Your task to perform on an android device: empty trash in the gmail app Image 0: 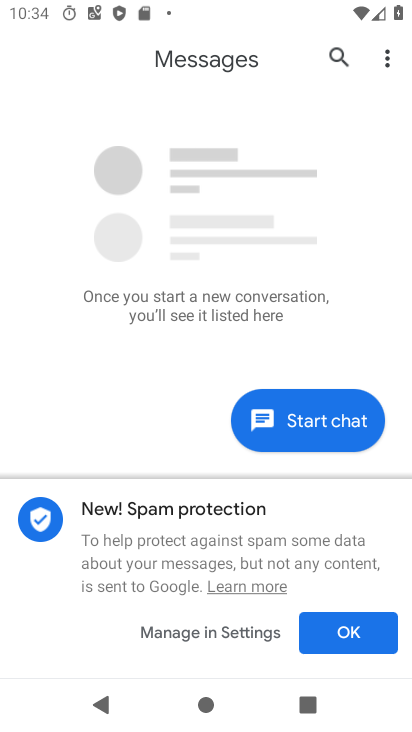
Step 0: press home button
Your task to perform on an android device: empty trash in the gmail app Image 1: 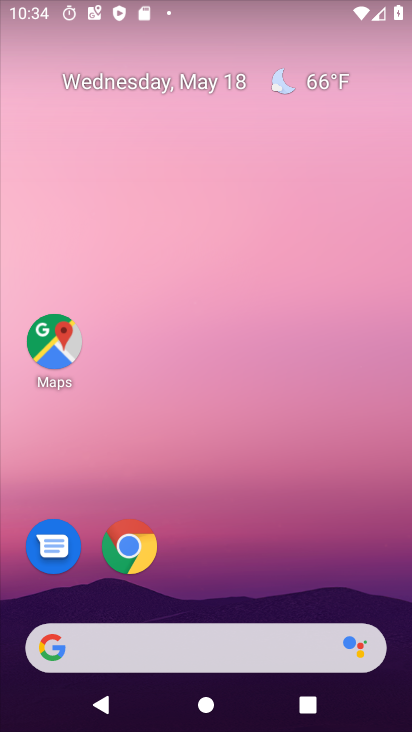
Step 1: drag from (208, 616) to (266, 9)
Your task to perform on an android device: empty trash in the gmail app Image 2: 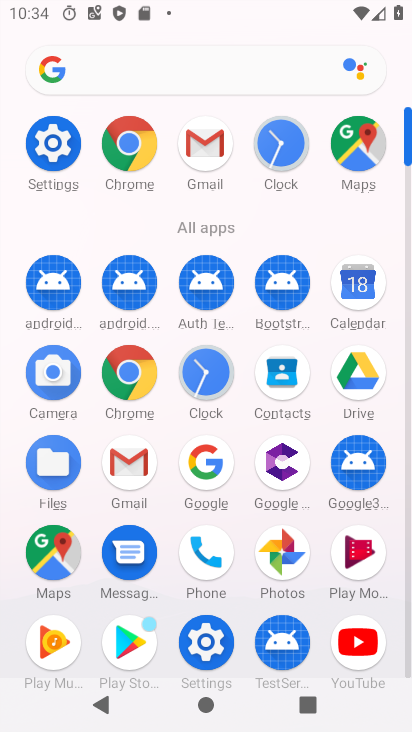
Step 2: click (197, 132)
Your task to perform on an android device: empty trash in the gmail app Image 3: 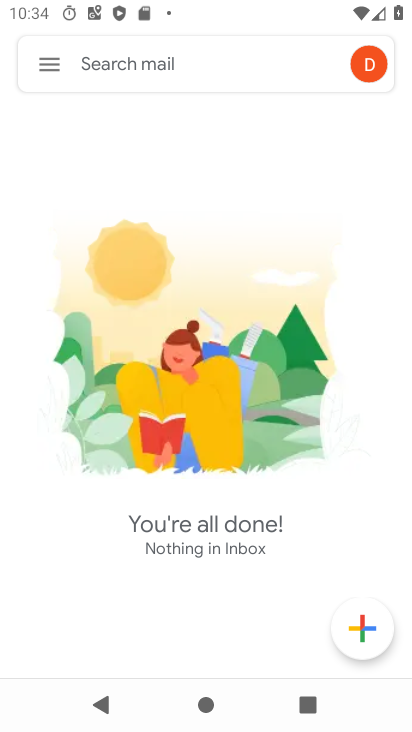
Step 3: click (54, 74)
Your task to perform on an android device: empty trash in the gmail app Image 4: 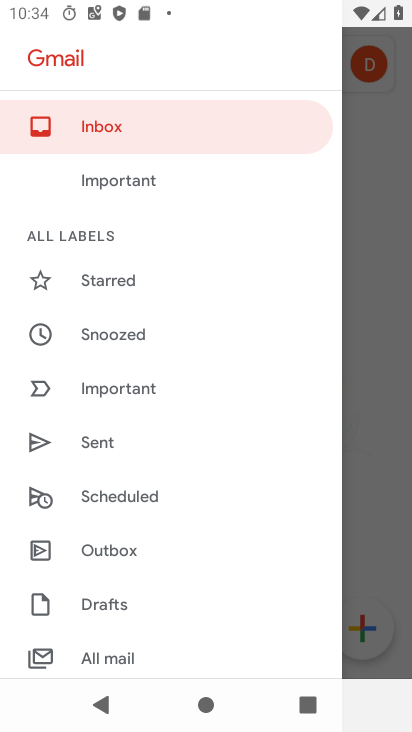
Step 4: drag from (168, 602) to (181, 174)
Your task to perform on an android device: empty trash in the gmail app Image 5: 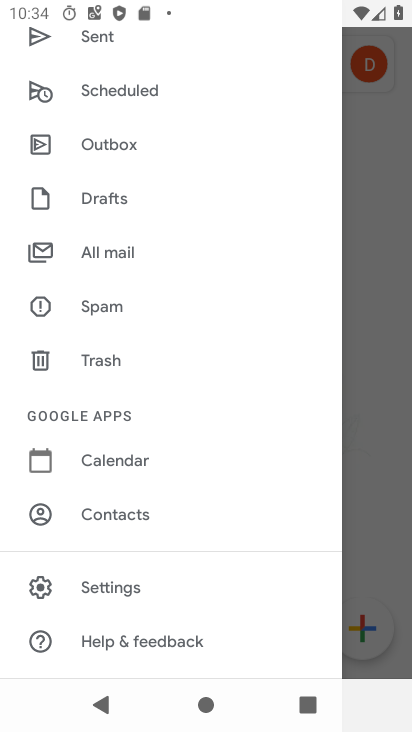
Step 5: click (100, 357)
Your task to perform on an android device: empty trash in the gmail app Image 6: 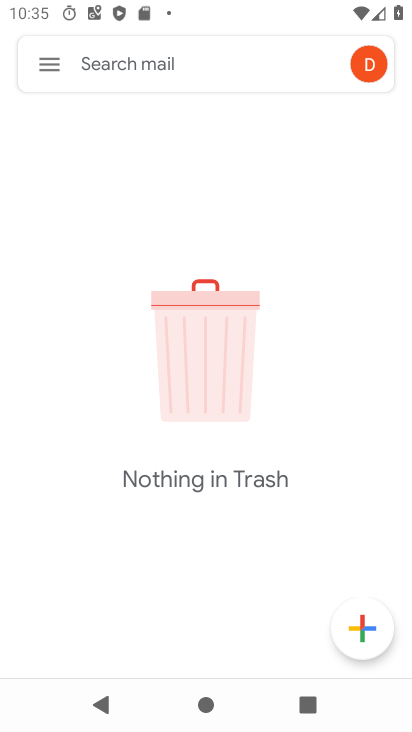
Step 6: task complete